Your task to perform on an android device: change the clock style Image 0: 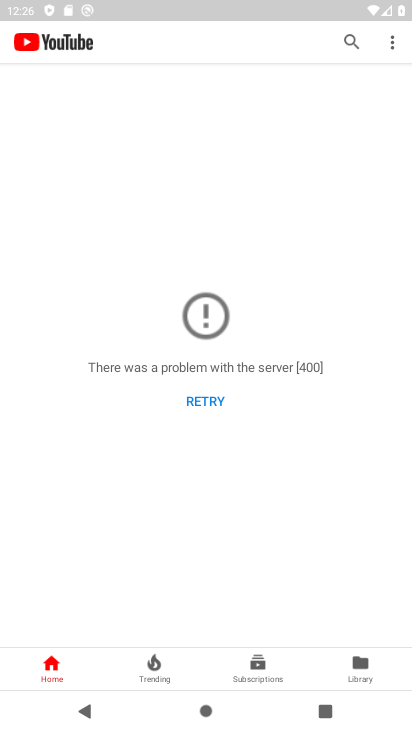
Step 0: press home button
Your task to perform on an android device: change the clock style Image 1: 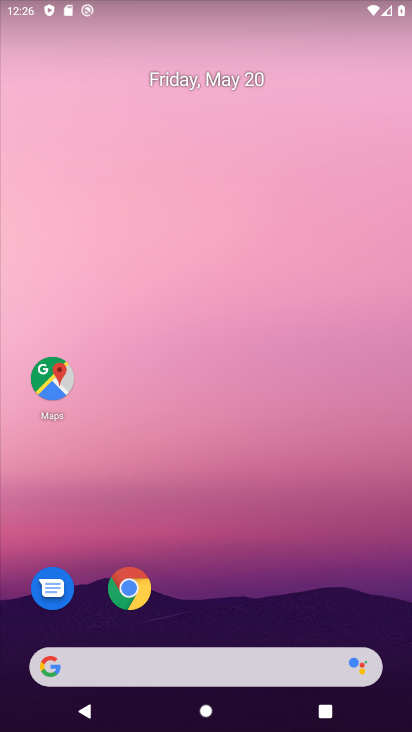
Step 1: drag from (394, 639) to (284, 58)
Your task to perform on an android device: change the clock style Image 2: 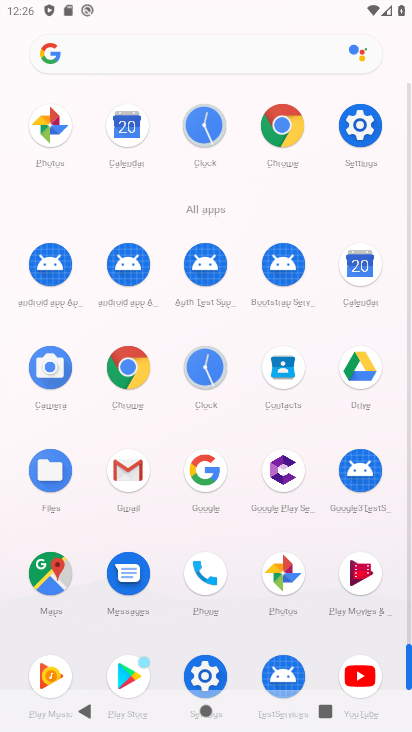
Step 2: click (202, 369)
Your task to perform on an android device: change the clock style Image 3: 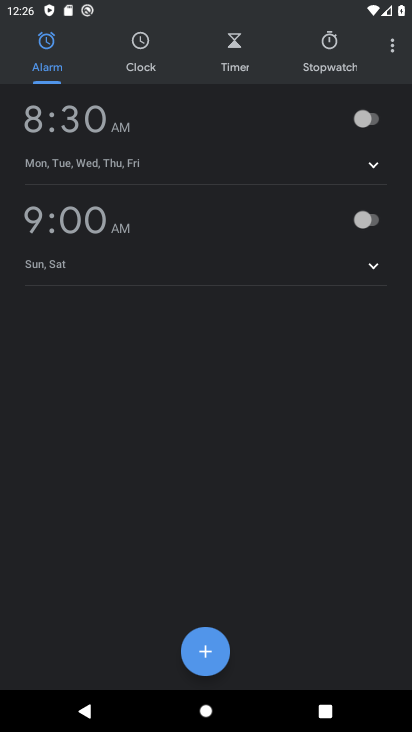
Step 3: click (390, 54)
Your task to perform on an android device: change the clock style Image 4: 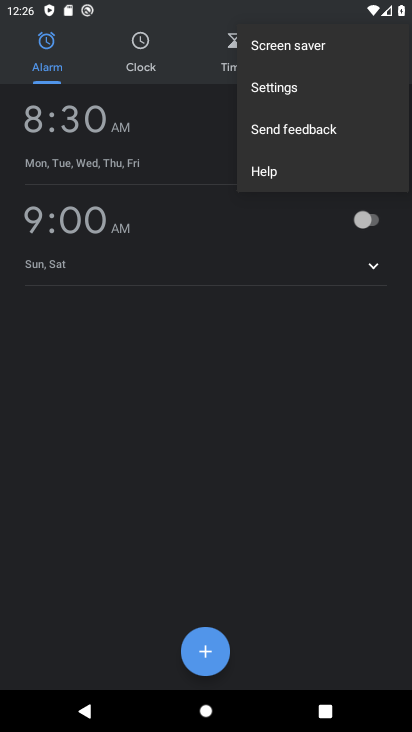
Step 4: click (280, 88)
Your task to perform on an android device: change the clock style Image 5: 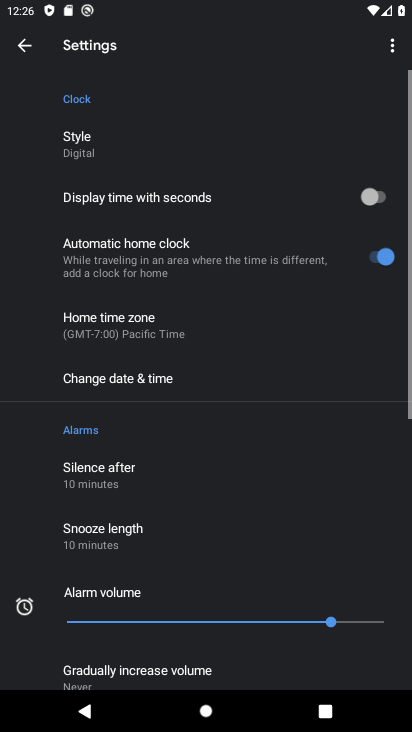
Step 5: click (70, 148)
Your task to perform on an android device: change the clock style Image 6: 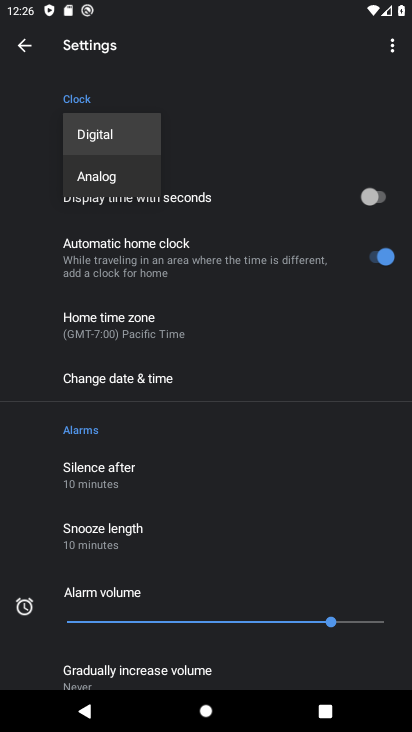
Step 6: click (83, 178)
Your task to perform on an android device: change the clock style Image 7: 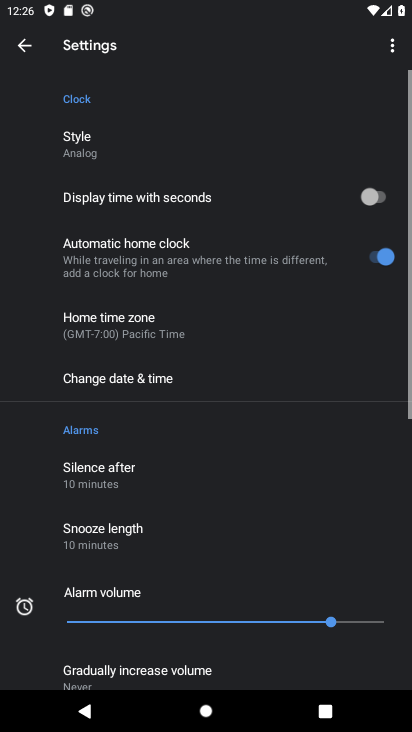
Step 7: task complete